Your task to perform on an android device: Go to Reddit.com Image 0: 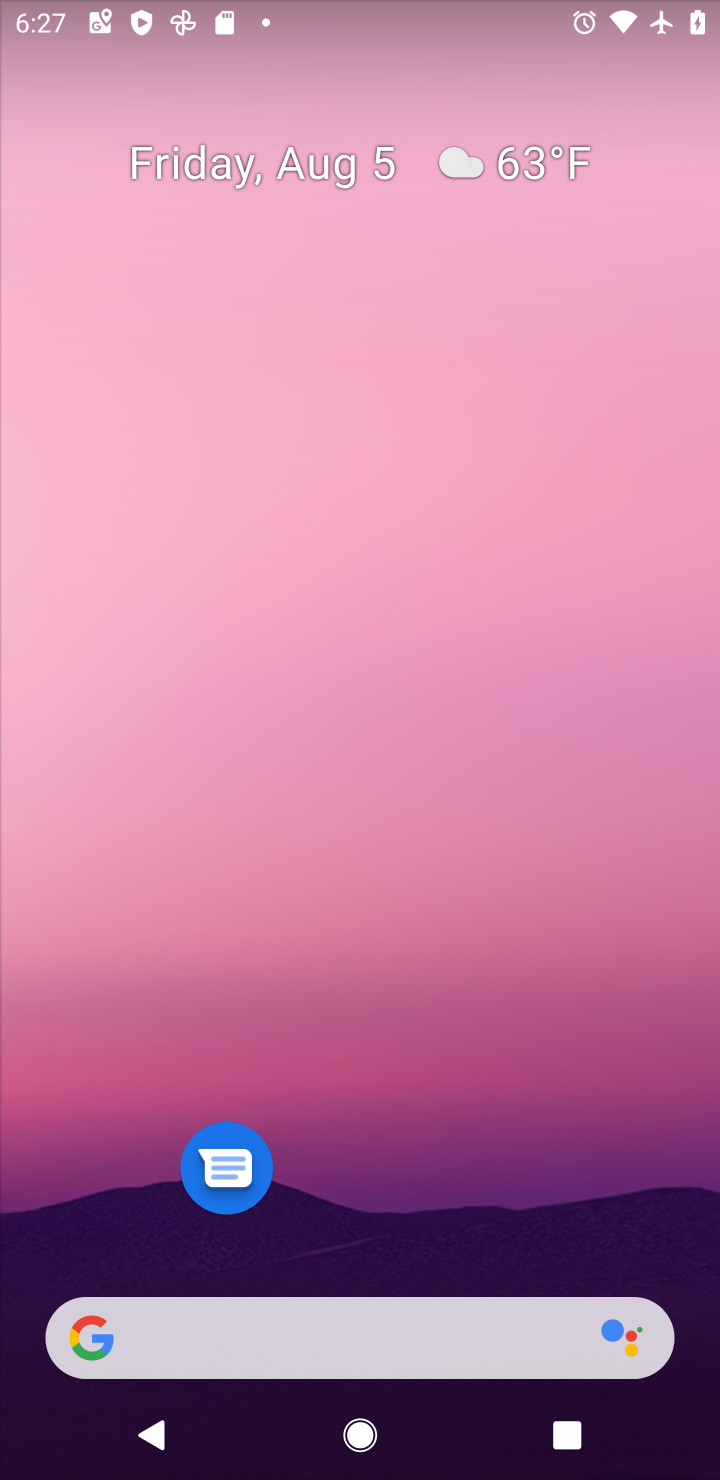
Step 0: press home button
Your task to perform on an android device: Go to Reddit.com Image 1: 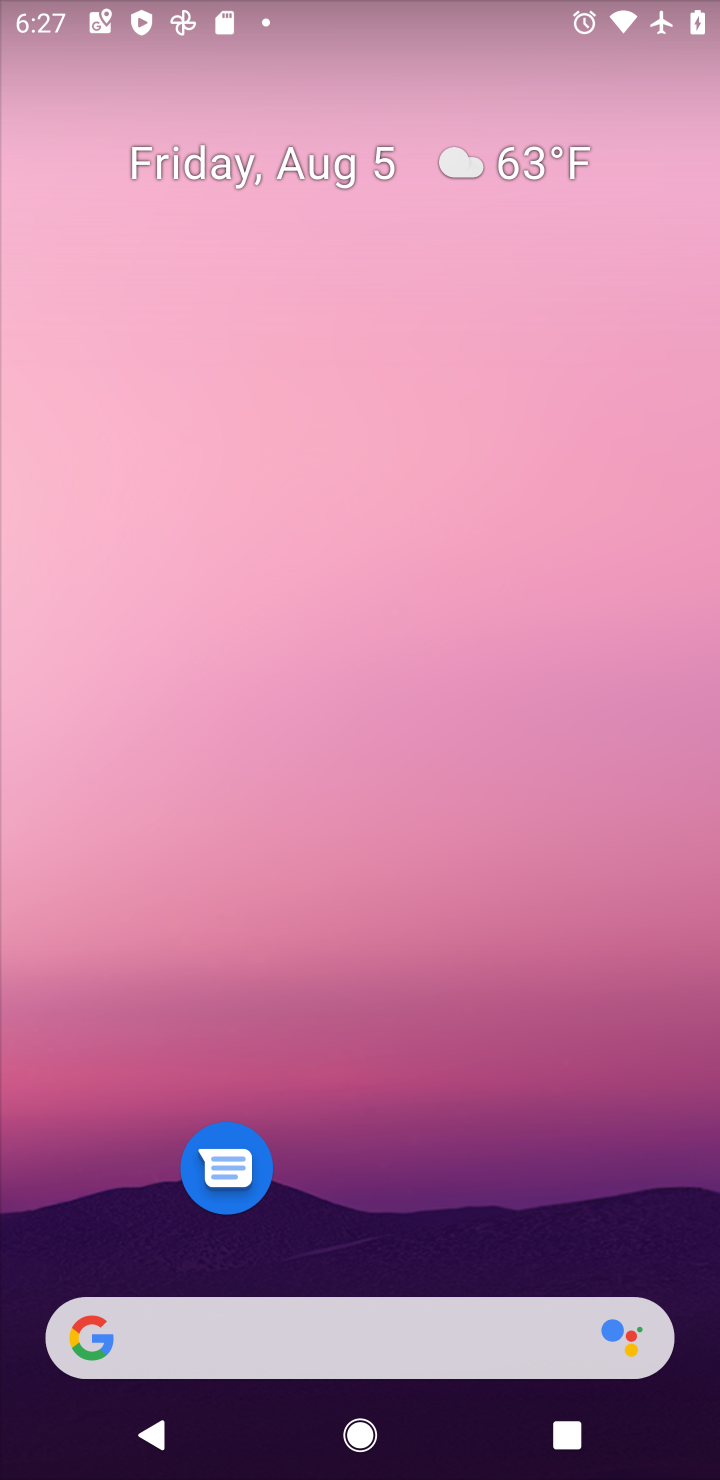
Step 1: press home button
Your task to perform on an android device: Go to Reddit.com Image 2: 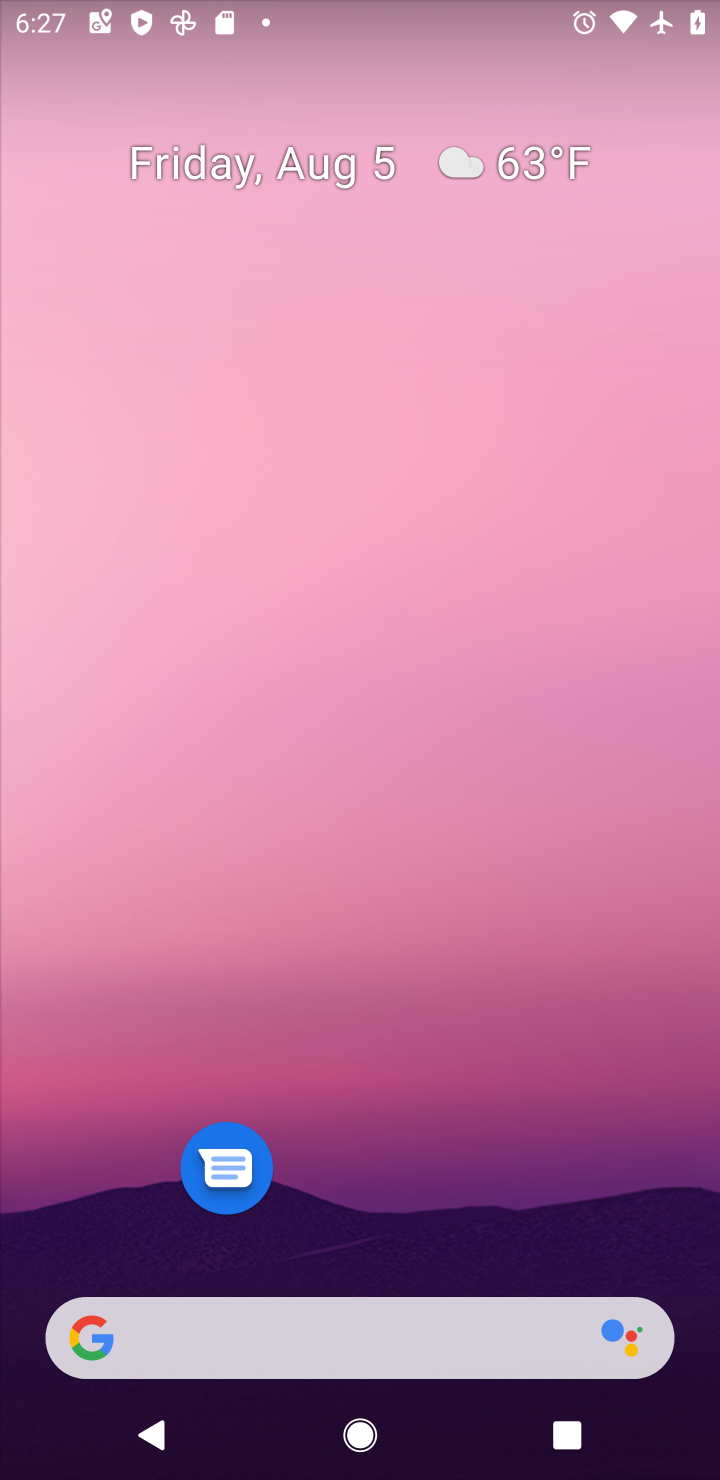
Step 2: click (60, 1324)
Your task to perform on an android device: Go to Reddit.com Image 3: 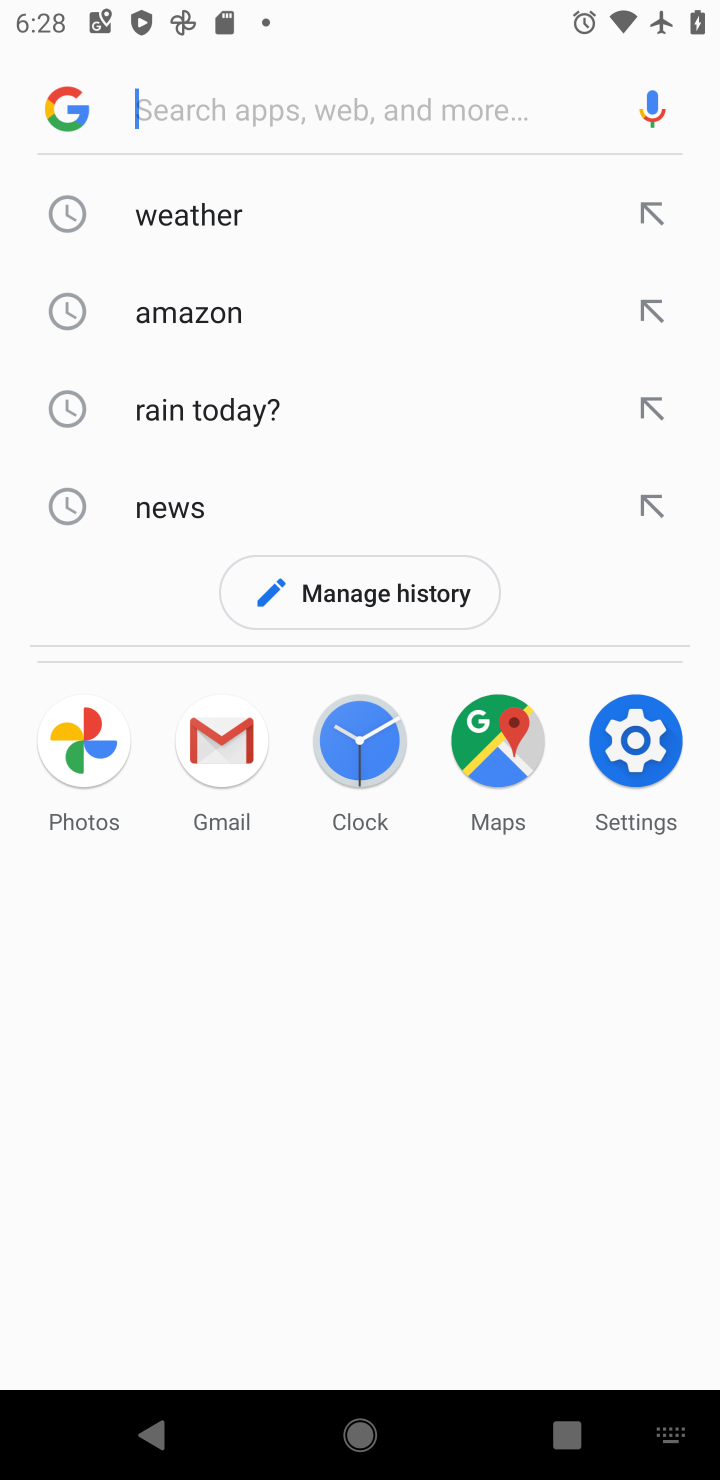
Step 3: type "Reddit.com"
Your task to perform on an android device: Go to Reddit.com Image 4: 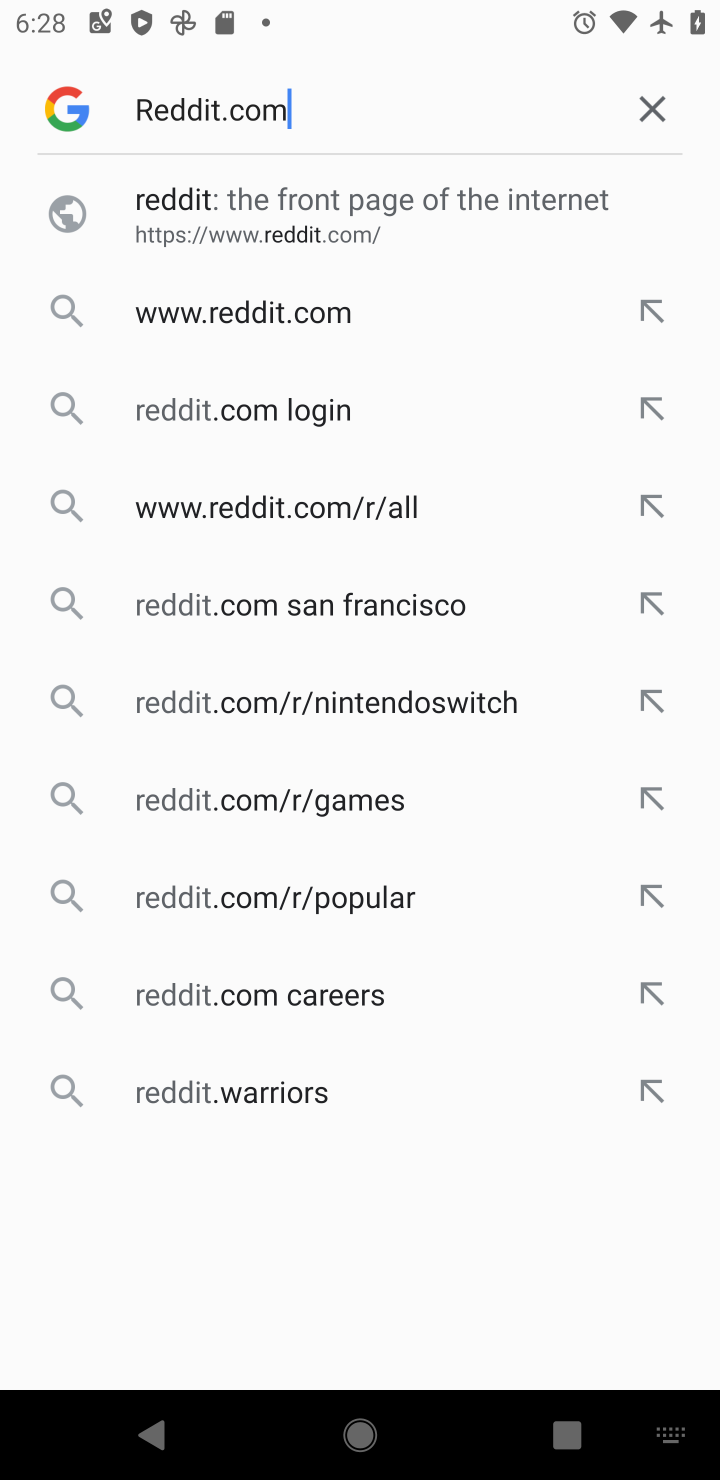
Step 4: press enter
Your task to perform on an android device: Go to Reddit.com Image 5: 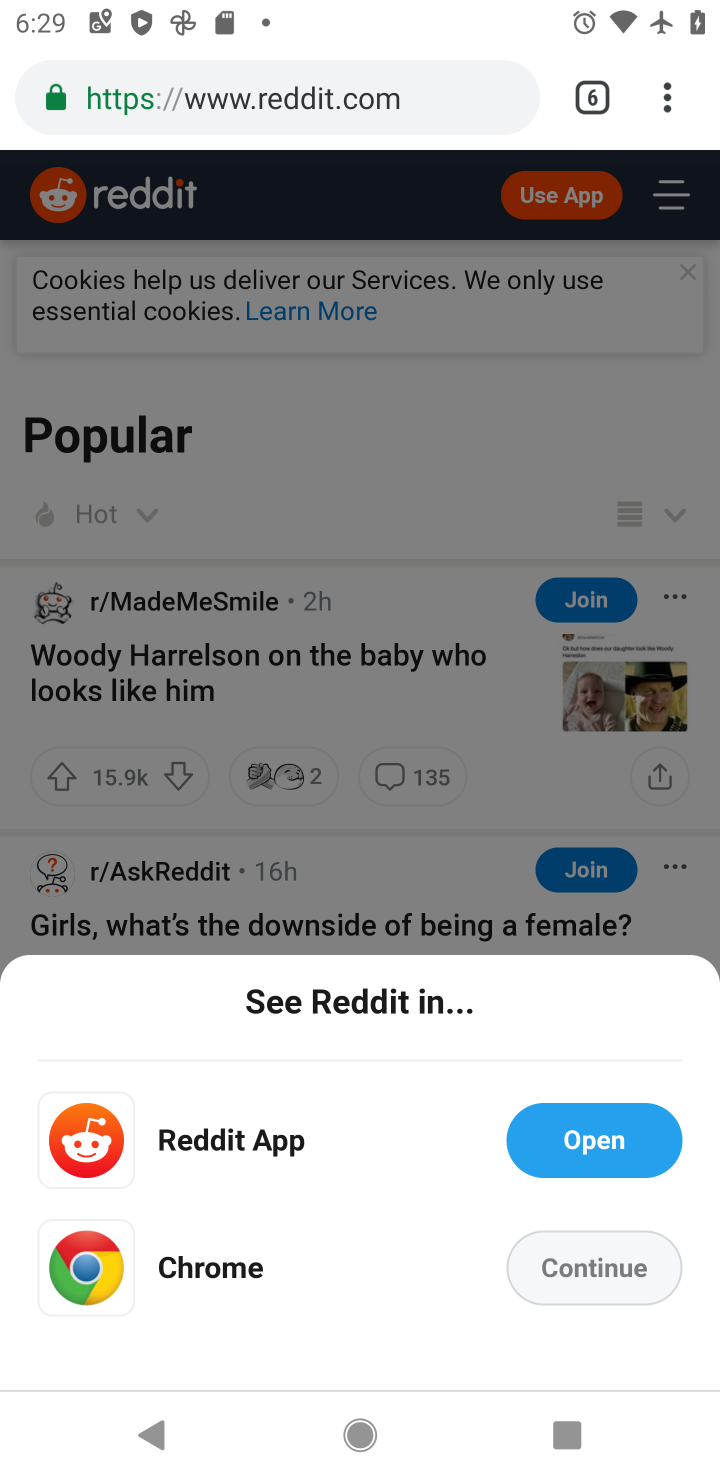
Step 5: task complete